Your task to perform on an android device: Search for Italian restaurants on Maps Image 0: 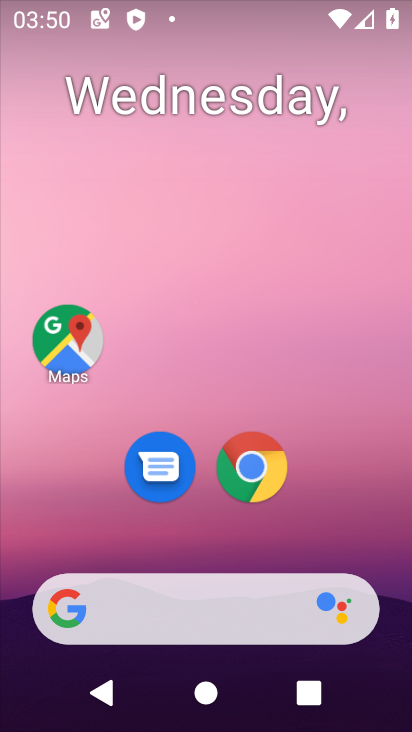
Step 0: click (67, 344)
Your task to perform on an android device: Search for Italian restaurants on Maps Image 1: 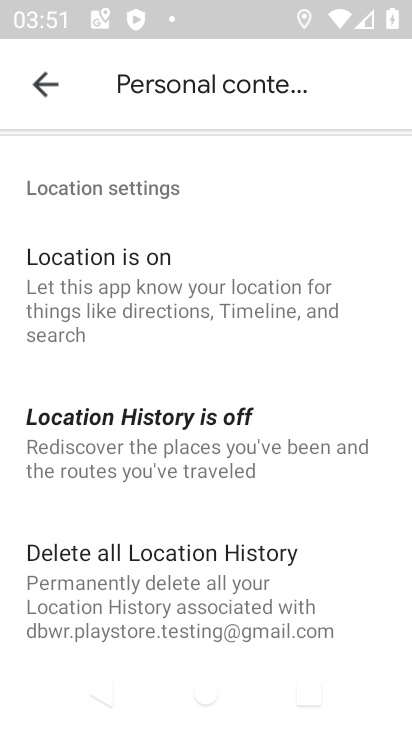
Step 1: press back button
Your task to perform on an android device: Search for Italian restaurants on Maps Image 2: 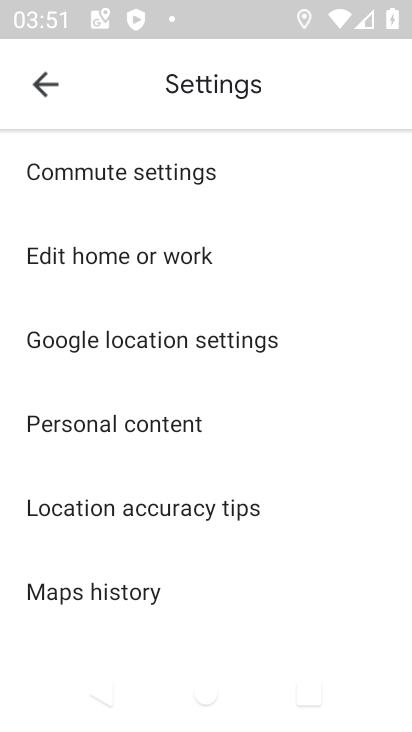
Step 2: press back button
Your task to perform on an android device: Search for Italian restaurants on Maps Image 3: 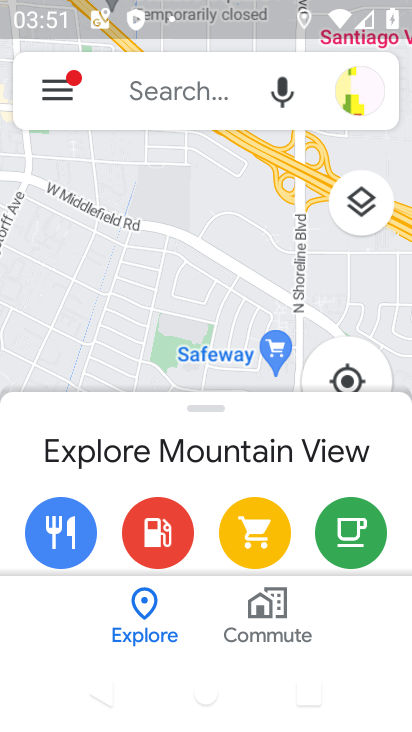
Step 3: click (160, 87)
Your task to perform on an android device: Search for Italian restaurants on Maps Image 4: 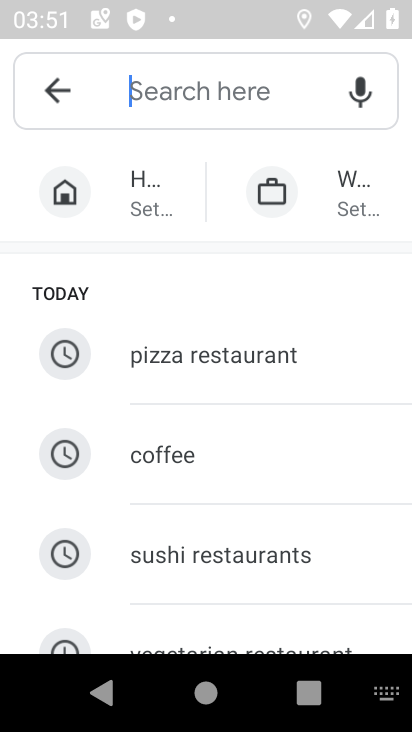
Step 4: type "italian restaurants"
Your task to perform on an android device: Search for Italian restaurants on Maps Image 5: 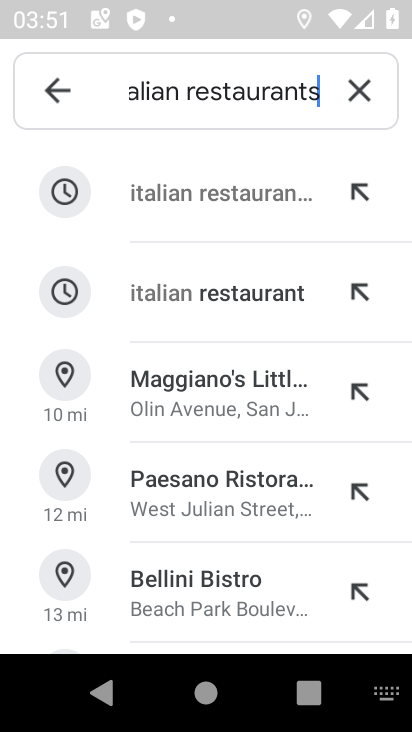
Step 5: click (160, 187)
Your task to perform on an android device: Search for Italian restaurants on Maps Image 6: 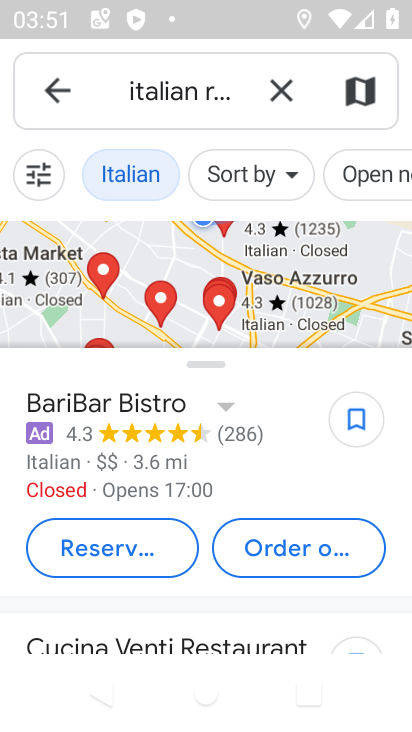
Step 6: task complete